Your task to perform on an android device: toggle pop-ups in chrome Image 0: 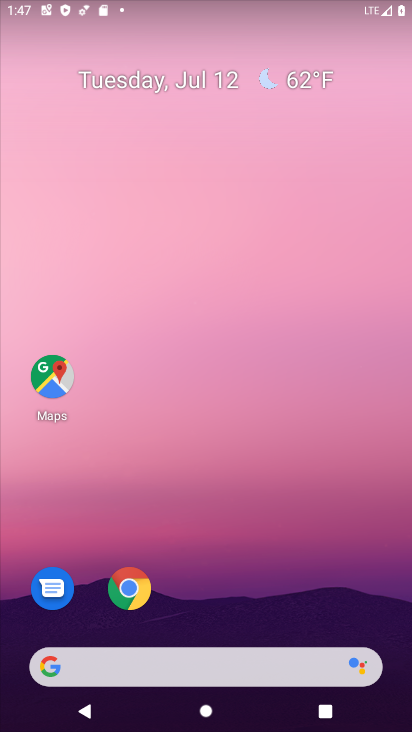
Step 0: click (126, 597)
Your task to perform on an android device: toggle pop-ups in chrome Image 1: 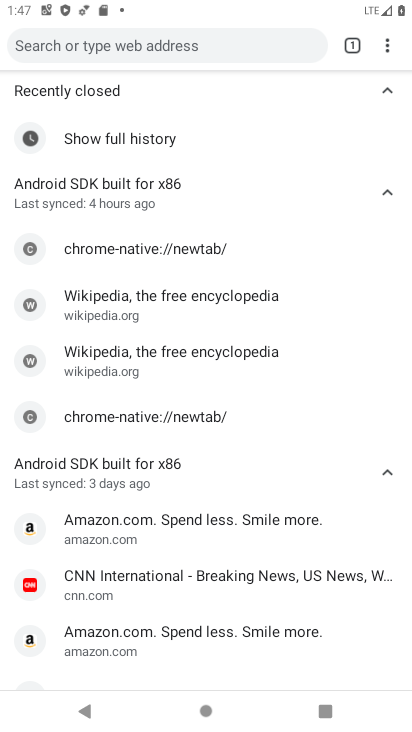
Step 1: click (390, 43)
Your task to perform on an android device: toggle pop-ups in chrome Image 2: 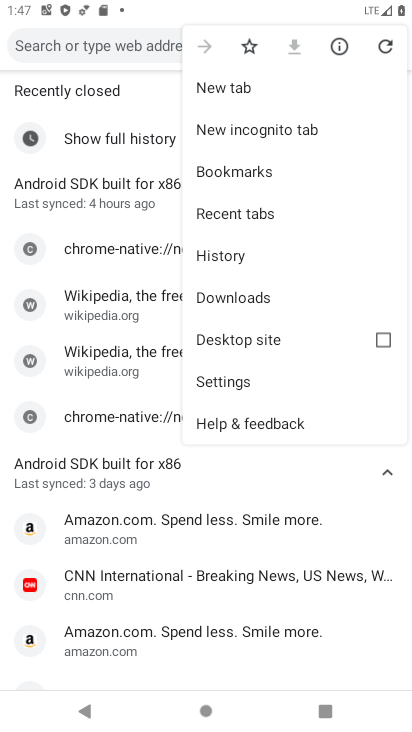
Step 2: click (234, 380)
Your task to perform on an android device: toggle pop-ups in chrome Image 3: 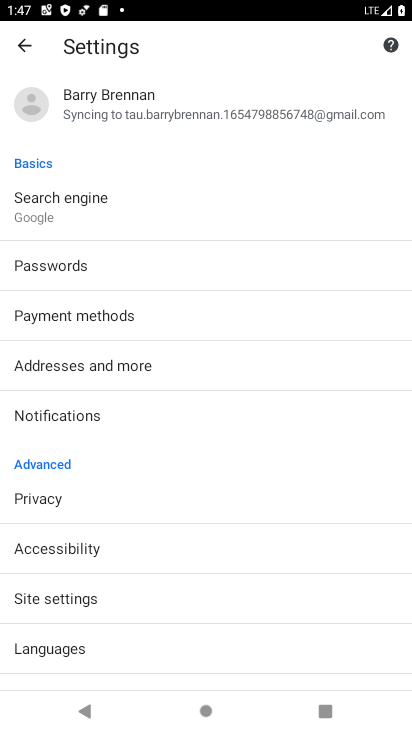
Step 3: drag from (211, 630) to (194, 18)
Your task to perform on an android device: toggle pop-ups in chrome Image 4: 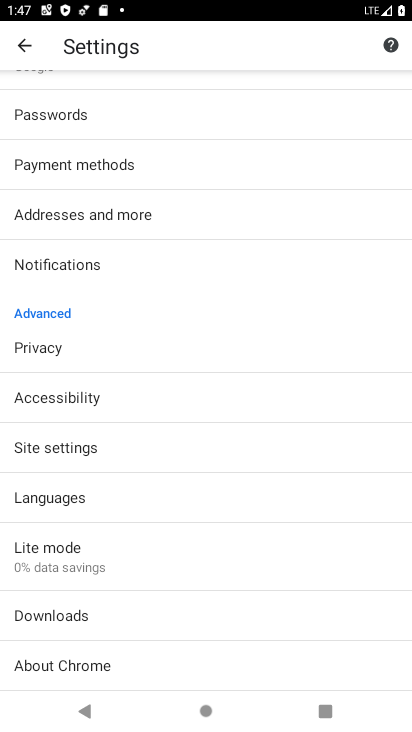
Step 4: click (80, 445)
Your task to perform on an android device: toggle pop-ups in chrome Image 5: 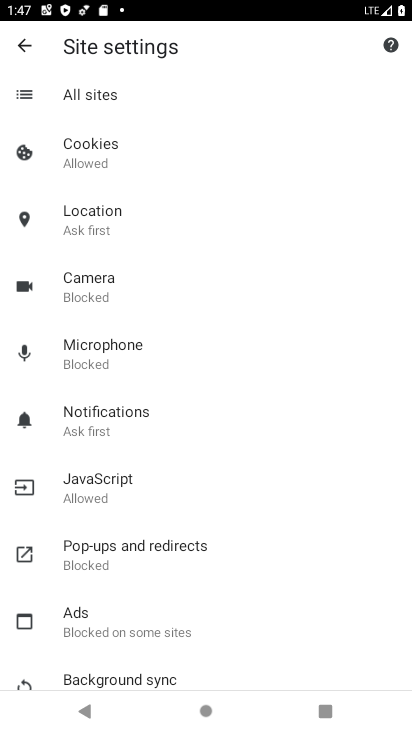
Step 5: click (69, 557)
Your task to perform on an android device: toggle pop-ups in chrome Image 6: 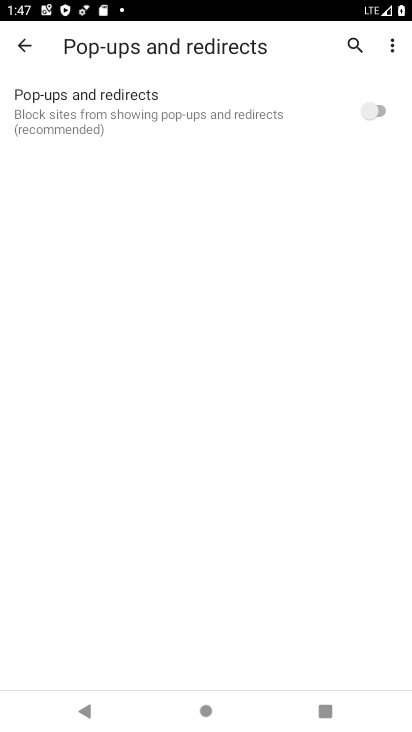
Step 6: click (375, 103)
Your task to perform on an android device: toggle pop-ups in chrome Image 7: 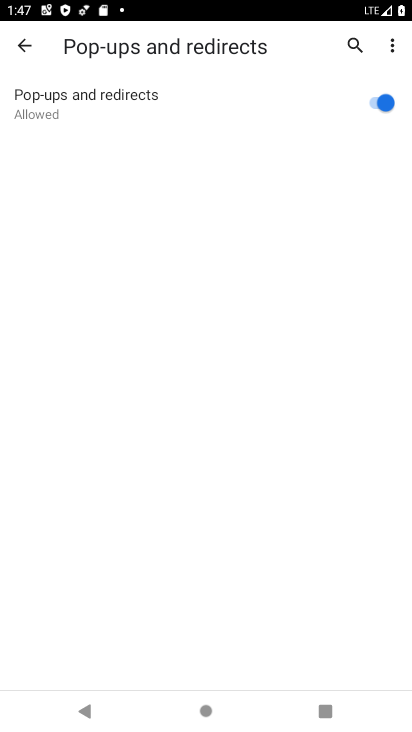
Step 7: task complete